Your task to perform on an android device: Show me productivity apps on the Play Store Image 0: 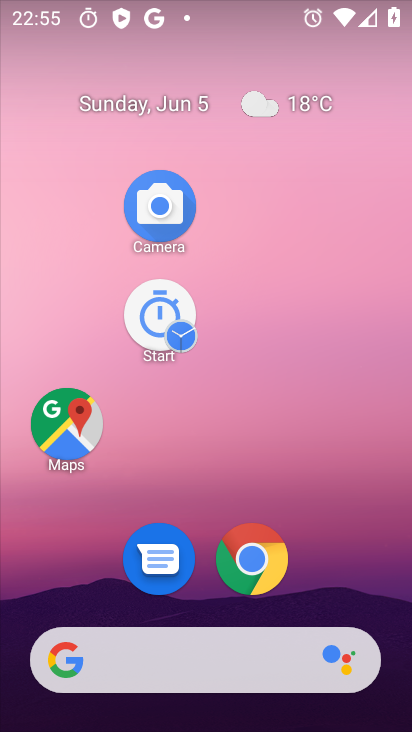
Step 0: drag from (199, 666) to (109, 2)
Your task to perform on an android device: Show me productivity apps on the Play Store Image 1: 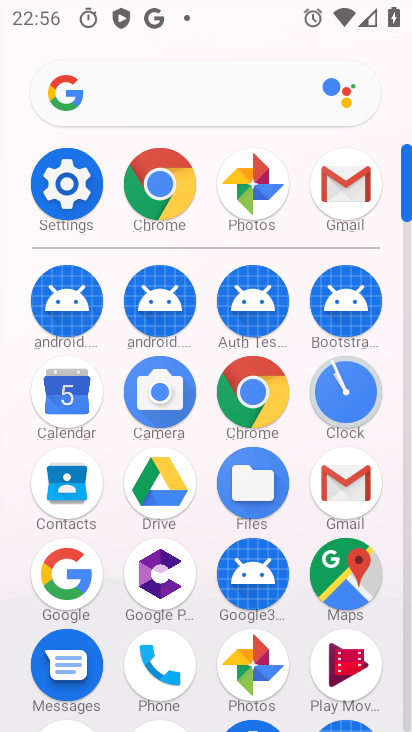
Step 1: drag from (162, 443) to (115, 145)
Your task to perform on an android device: Show me productivity apps on the Play Store Image 2: 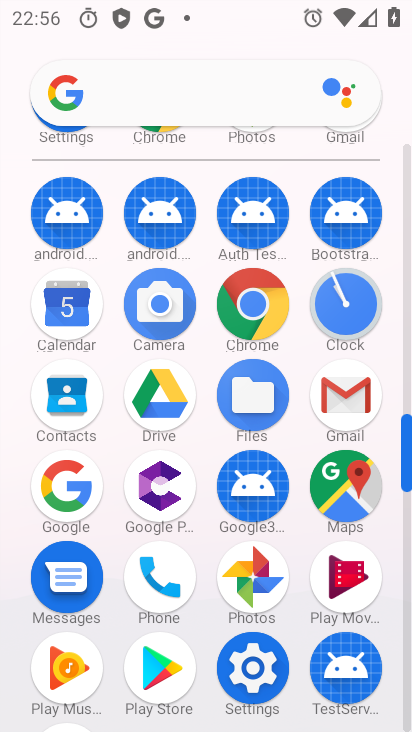
Step 2: drag from (187, 509) to (242, 102)
Your task to perform on an android device: Show me productivity apps on the Play Store Image 3: 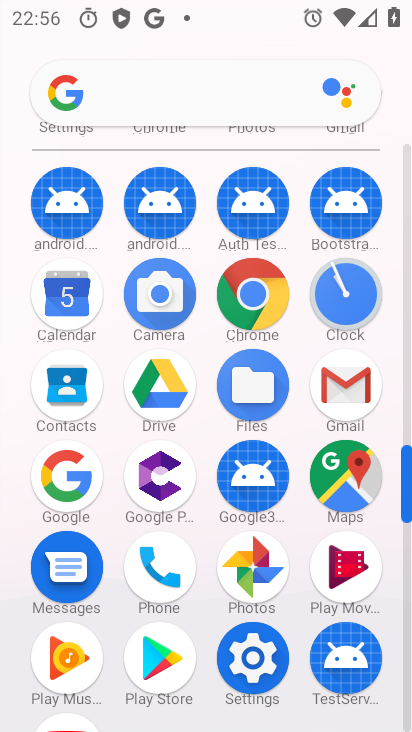
Step 3: drag from (185, 382) to (159, 151)
Your task to perform on an android device: Show me productivity apps on the Play Store Image 4: 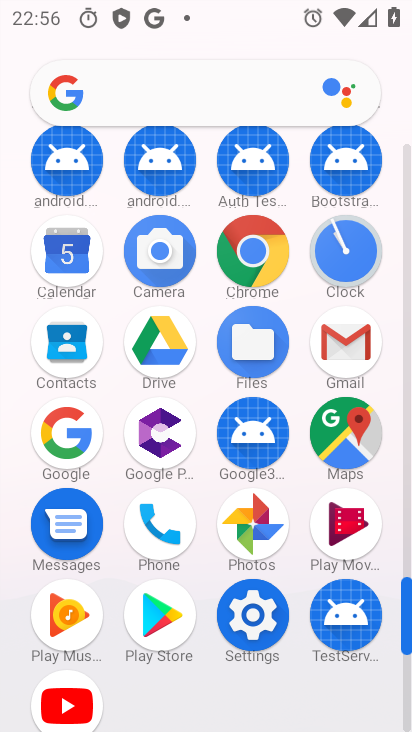
Step 4: click (163, 611)
Your task to perform on an android device: Show me productivity apps on the Play Store Image 5: 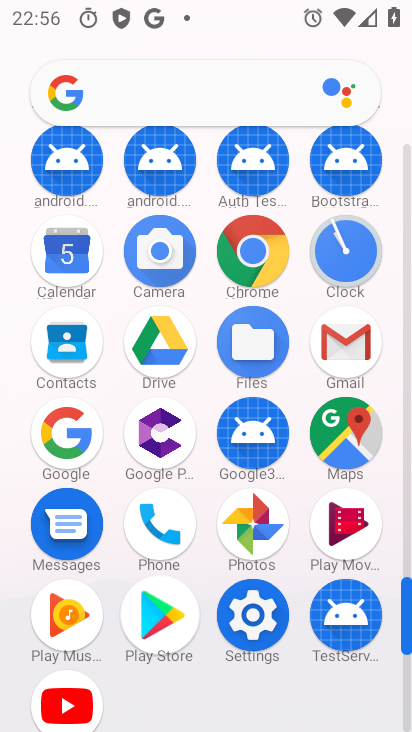
Step 5: click (175, 631)
Your task to perform on an android device: Show me productivity apps on the Play Store Image 6: 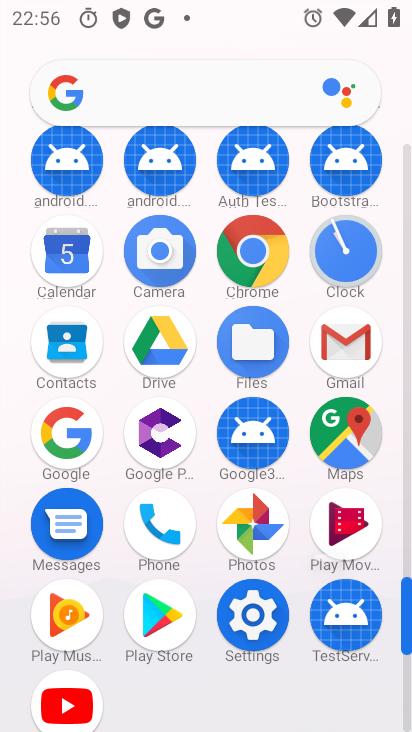
Step 6: click (176, 639)
Your task to perform on an android device: Show me productivity apps on the Play Store Image 7: 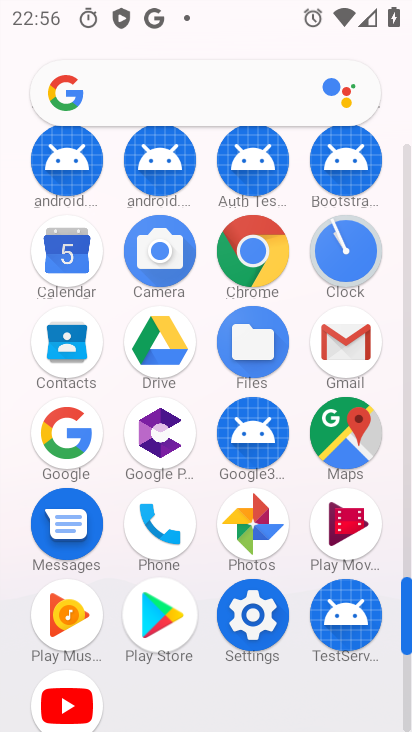
Step 7: click (172, 641)
Your task to perform on an android device: Show me productivity apps on the Play Store Image 8: 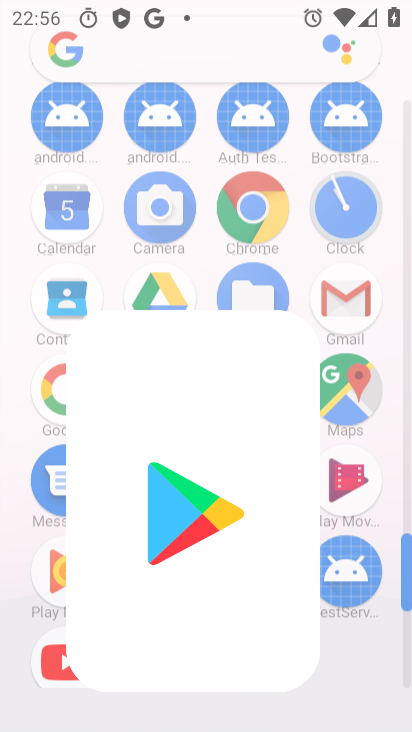
Step 8: click (160, 618)
Your task to perform on an android device: Show me productivity apps on the Play Store Image 9: 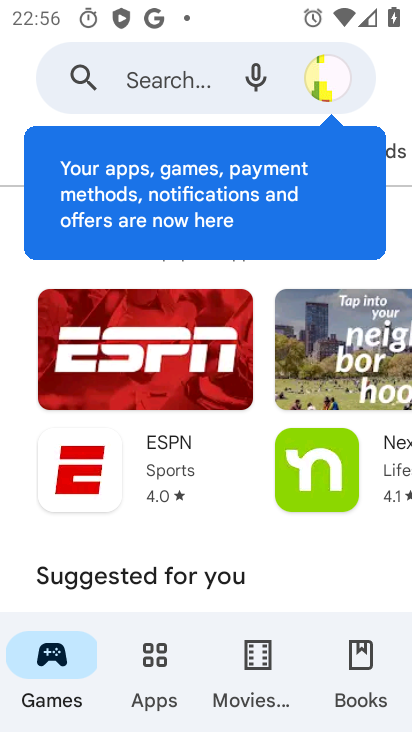
Step 9: click (131, 86)
Your task to perform on an android device: Show me productivity apps on the Play Store Image 10: 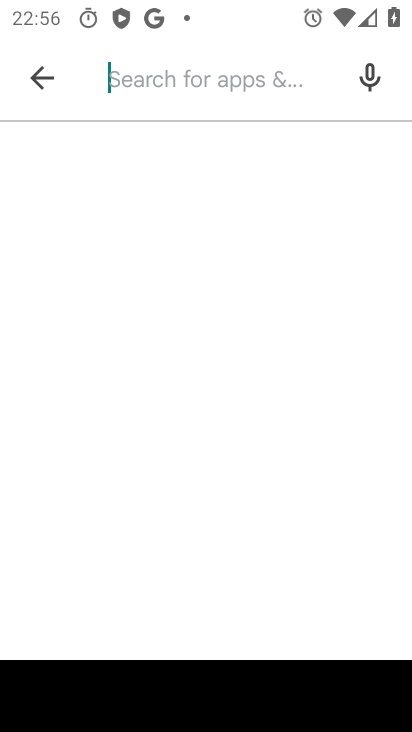
Step 10: type "productivity apps"
Your task to perform on an android device: Show me productivity apps on the Play Store Image 11: 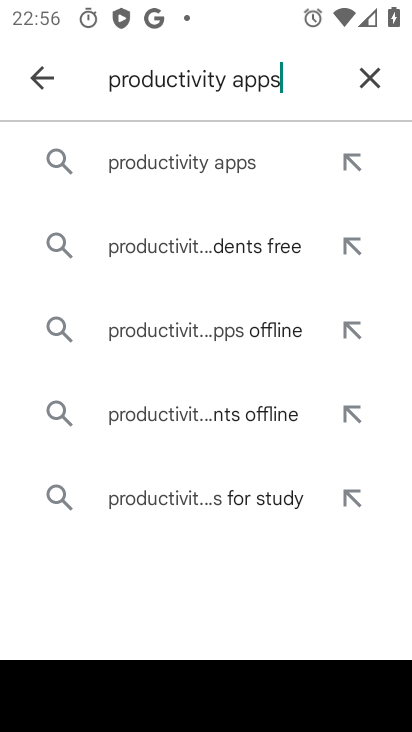
Step 11: click (162, 163)
Your task to perform on an android device: Show me productivity apps on the Play Store Image 12: 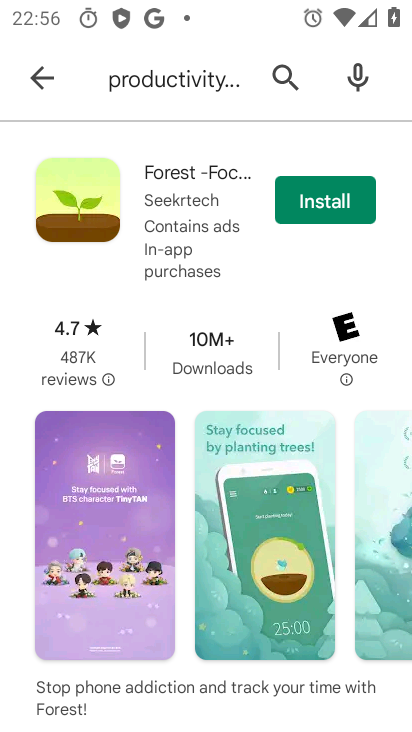
Step 12: task complete